Your task to perform on an android device: choose inbox layout in the gmail app Image 0: 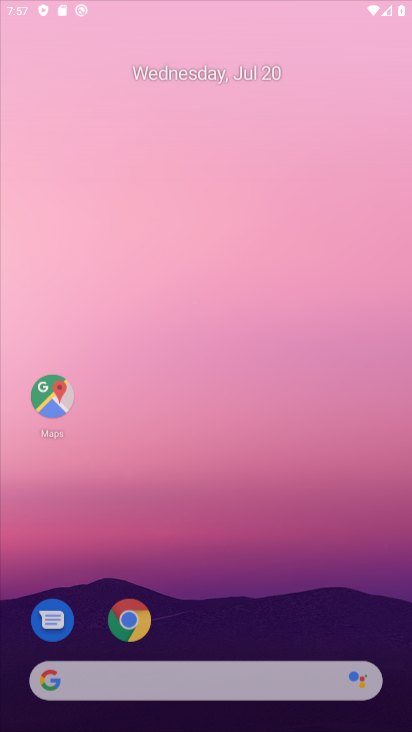
Step 0: click (243, 157)
Your task to perform on an android device: choose inbox layout in the gmail app Image 1: 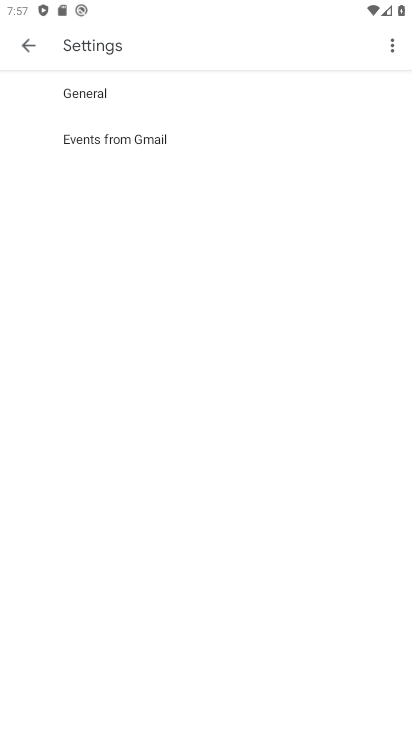
Step 1: press home button
Your task to perform on an android device: choose inbox layout in the gmail app Image 2: 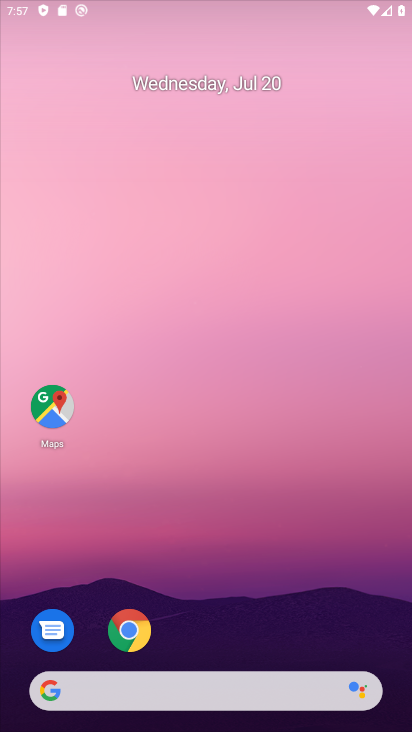
Step 2: drag from (219, 677) to (262, 118)
Your task to perform on an android device: choose inbox layout in the gmail app Image 3: 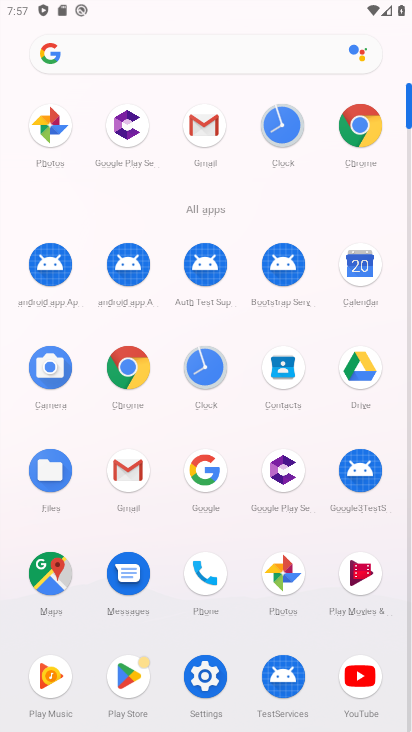
Step 3: click (201, 120)
Your task to perform on an android device: choose inbox layout in the gmail app Image 4: 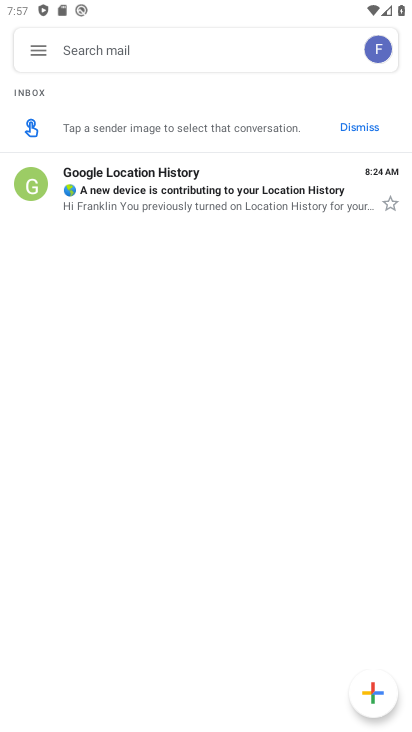
Step 4: click (35, 52)
Your task to perform on an android device: choose inbox layout in the gmail app Image 5: 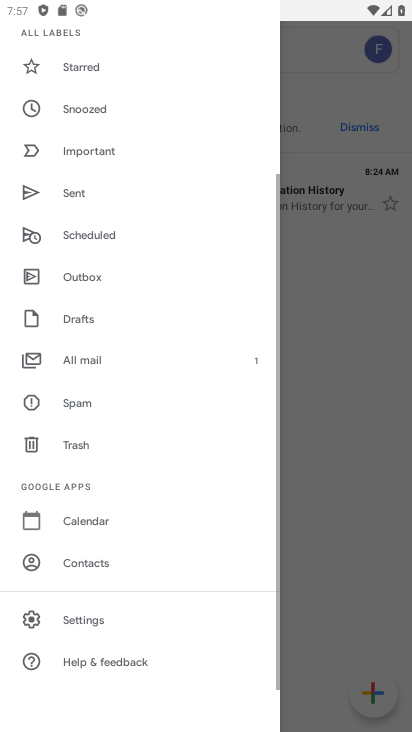
Step 5: click (76, 626)
Your task to perform on an android device: choose inbox layout in the gmail app Image 6: 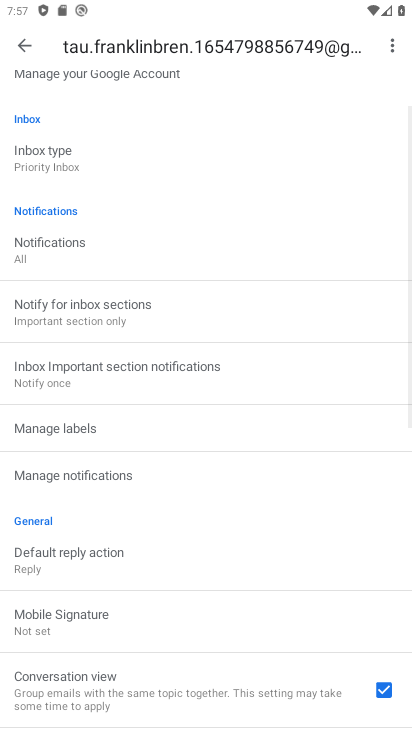
Step 6: click (41, 157)
Your task to perform on an android device: choose inbox layout in the gmail app Image 7: 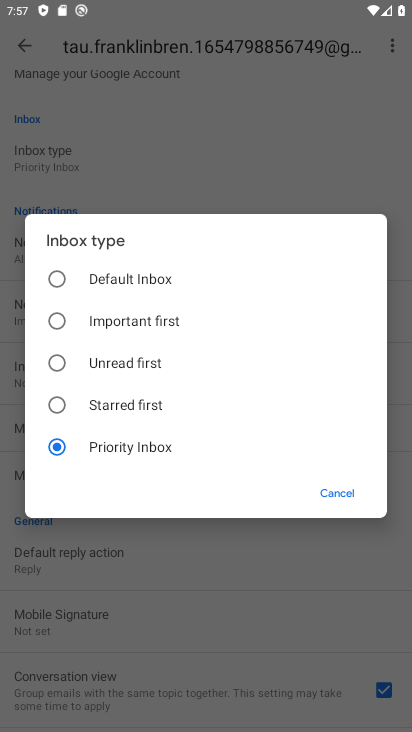
Step 7: click (59, 399)
Your task to perform on an android device: choose inbox layout in the gmail app Image 8: 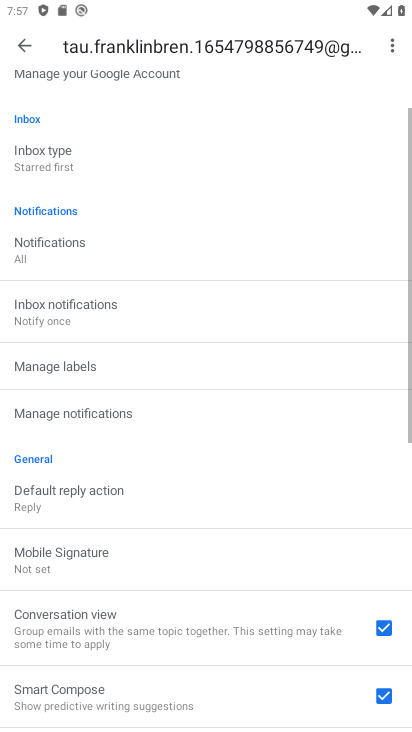
Step 8: task complete